Your task to perform on an android device: Open my contact list Image 0: 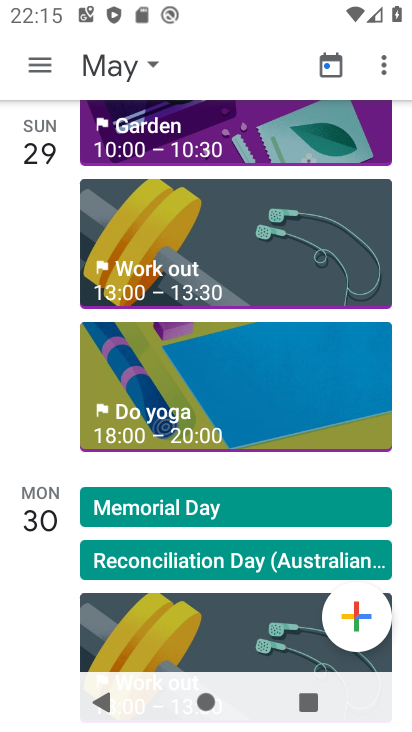
Step 0: press home button
Your task to perform on an android device: Open my contact list Image 1: 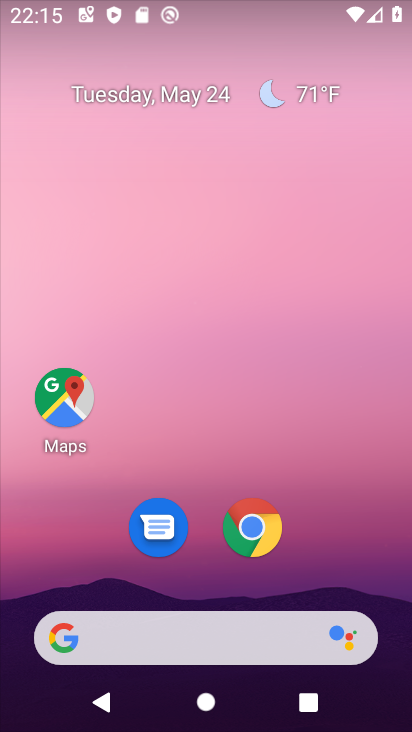
Step 1: drag from (334, 591) to (327, 7)
Your task to perform on an android device: Open my contact list Image 2: 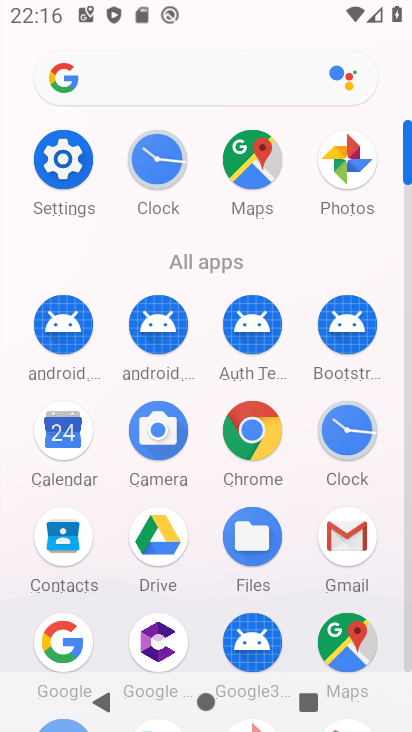
Step 2: click (53, 552)
Your task to perform on an android device: Open my contact list Image 3: 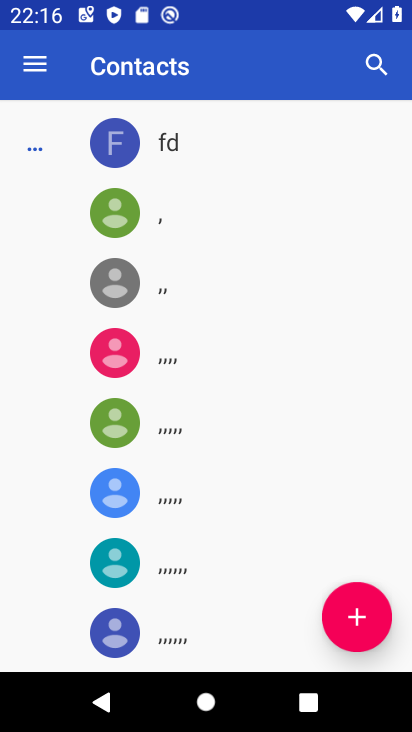
Step 3: task complete